Your task to perform on an android device: Go to internet settings Image 0: 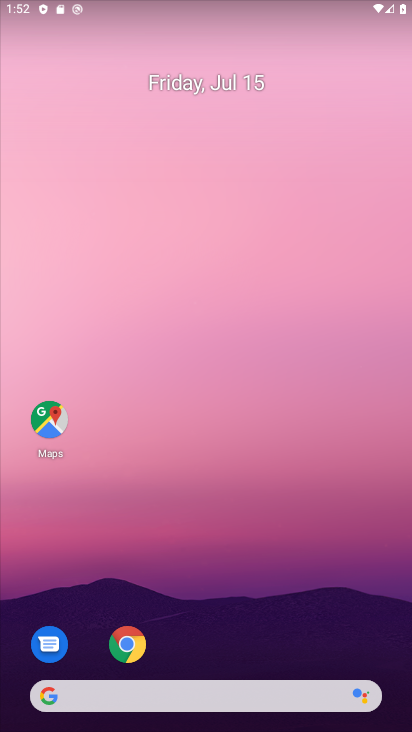
Step 0: drag from (1, 695) to (237, 147)
Your task to perform on an android device: Go to internet settings Image 1: 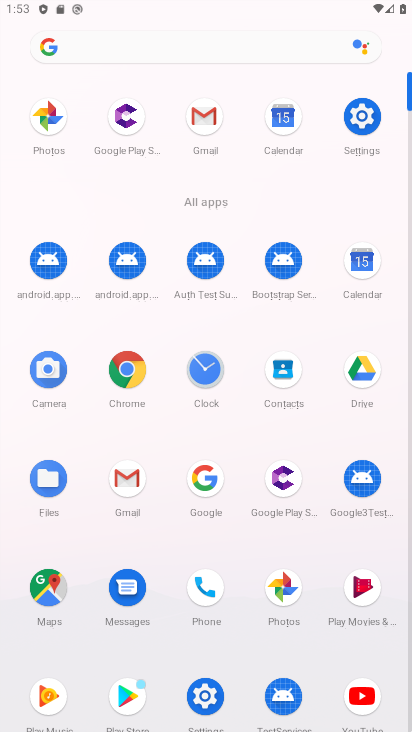
Step 1: click (216, 690)
Your task to perform on an android device: Go to internet settings Image 2: 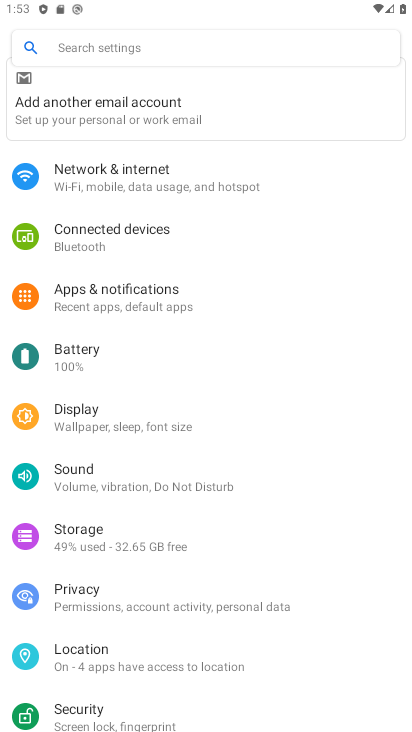
Step 2: click (183, 176)
Your task to perform on an android device: Go to internet settings Image 3: 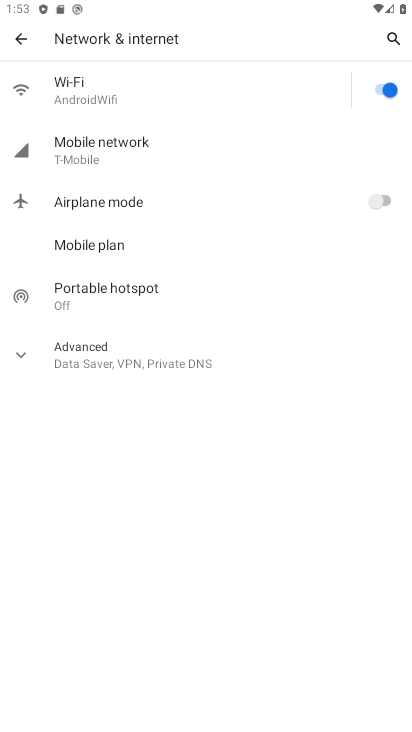
Step 3: task complete